Your task to perform on an android device: turn off javascript in the chrome app Image 0: 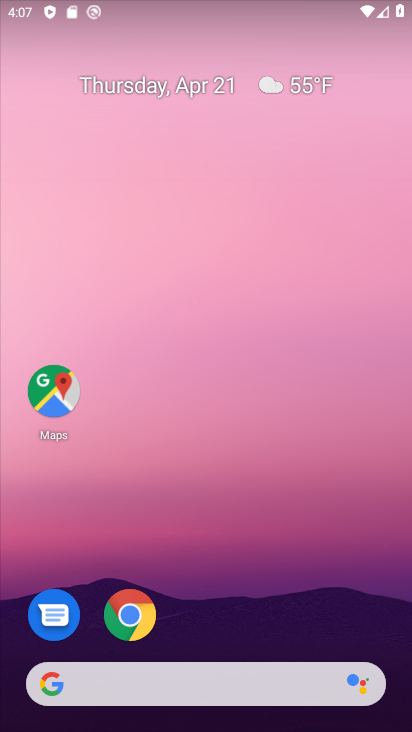
Step 0: click (131, 608)
Your task to perform on an android device: turn off javascript in the chrome app Image 1: 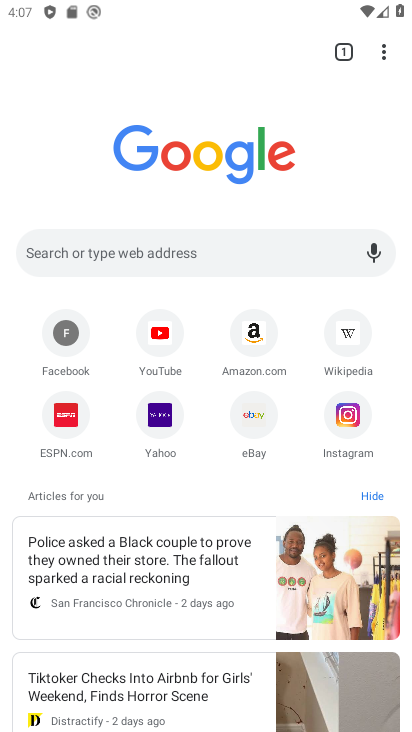
Step 1: click (381, 51)
Your task to perform on an android device: turn off javascript in the chrome app Image 2: 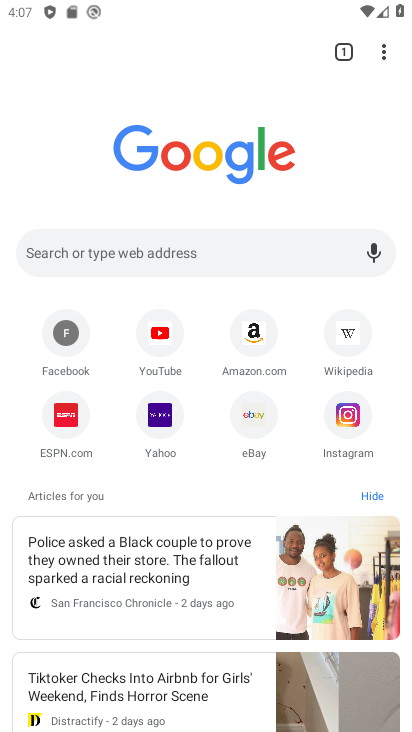
Step 2: drag from (381, 51) to (210, 434)
Your task to perform on an android device: turn off javascript in the chrome app Image 3: 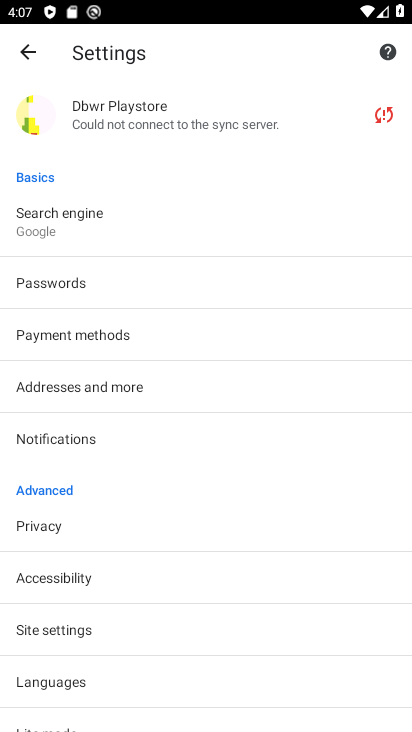
Step 3: drag from (165, 657) to (181, 319)
Your task to perform on an android device: turn off javascript in the chrome app Image 4: 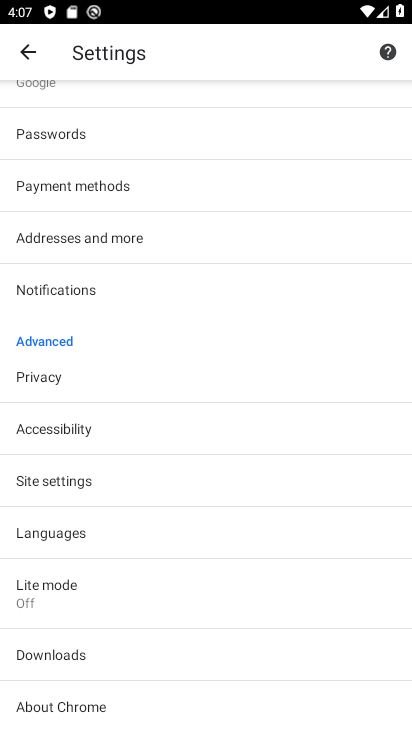
Step 4: click (81, 492)
Your task to perform on an android device: turn off javascript in the chrome app Image 5: 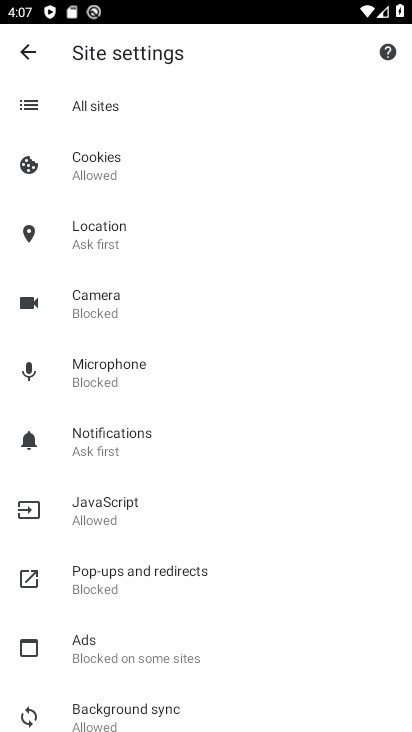
Step 5: click (83, 494)
Your task to perform on an android device: turn off javascript in the chrome app Image 6: 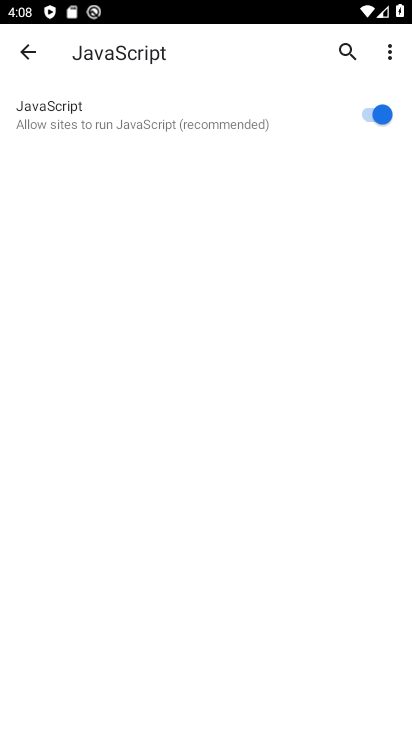
Step 6: click (370, 117)
Your task to perform on an android device: turn off javascript in the chrome app Image 7: 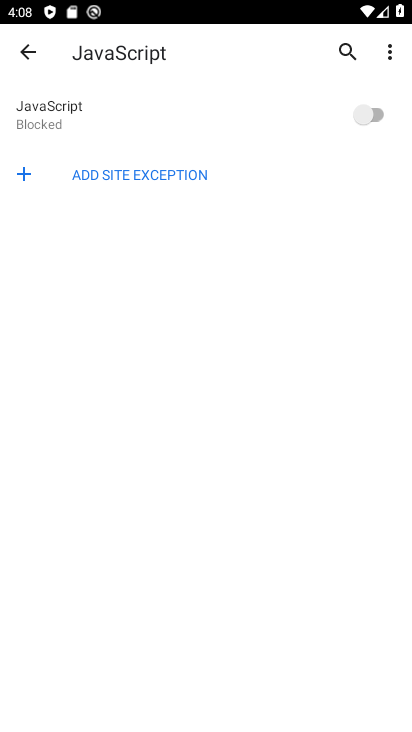
Step 7: task complete